Your task to perform on an android device: Open my contact list Image 0: 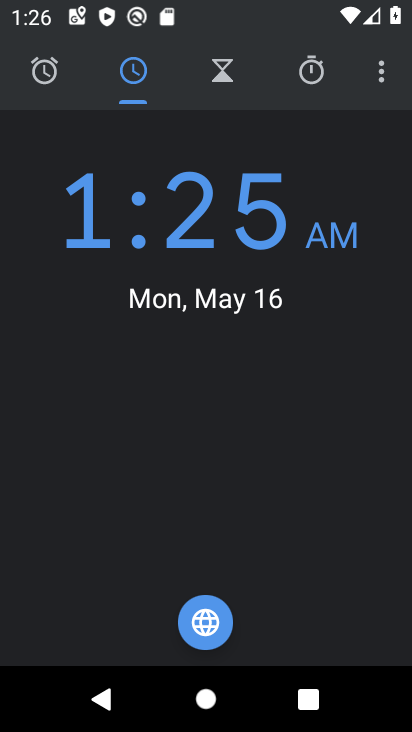
Step 0: press home button
Your task to perform on an android device: Open my contact list Image 1: 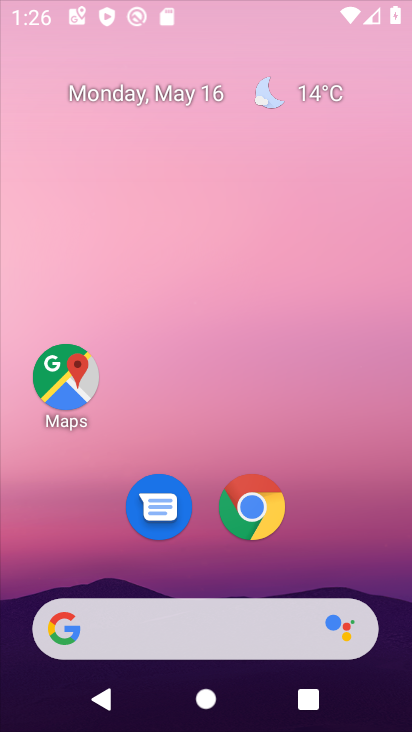
Step 1: drag from (256, 586) to (347, 222)
Your task to perform on an android device: Open my contact list Image 2: 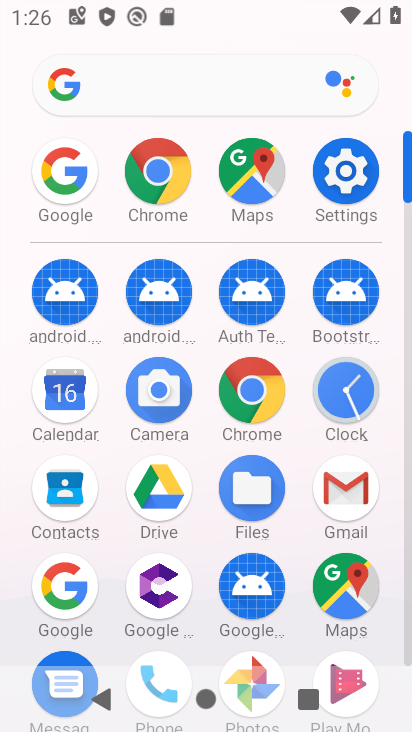
Step 2: click (57, 493)
Your task to perform on an android device: Open my contact list Image 3: 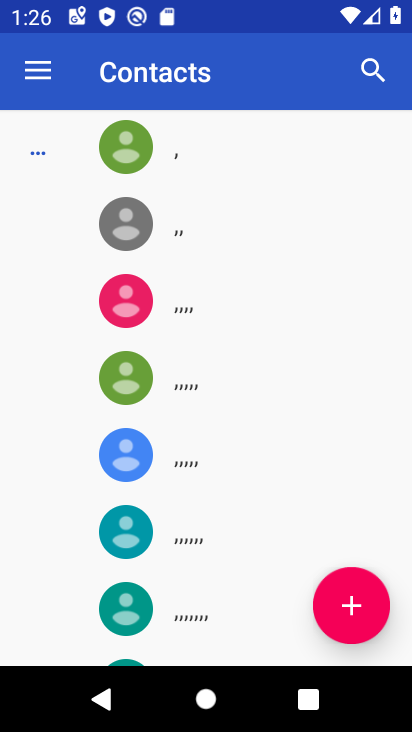
Step 3: task complete